Your task to perform on an android device: Open maps Image 0: 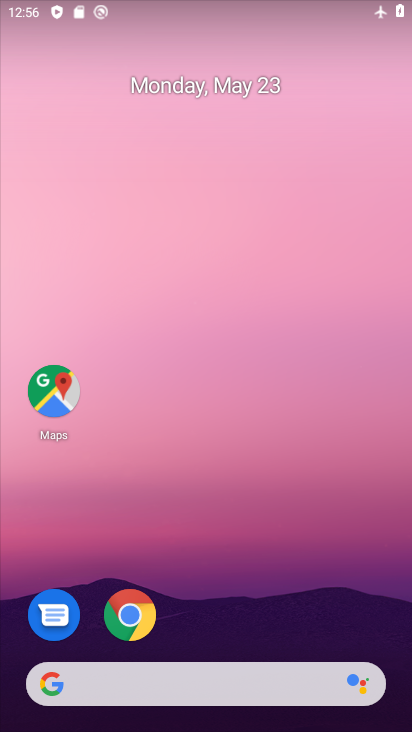
Step 0: drag from (228, 642) to (205, 10)
Your task to perform on an android device: Open maps Image 1: 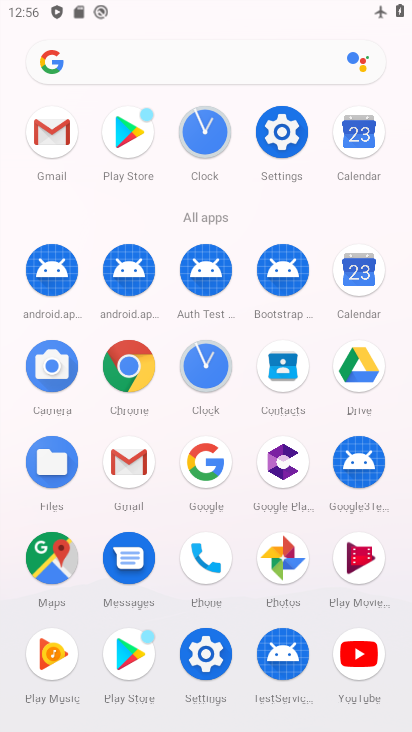
Step 1: click (49, 558)
Your task to perform on an android device: Open maps Image 2: 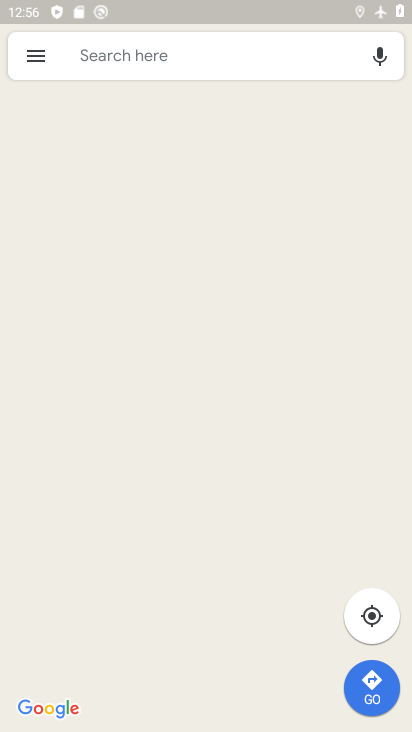
Step 2: task complete